Your task to perform on an android device: turn on improve location accuracy Image 0: 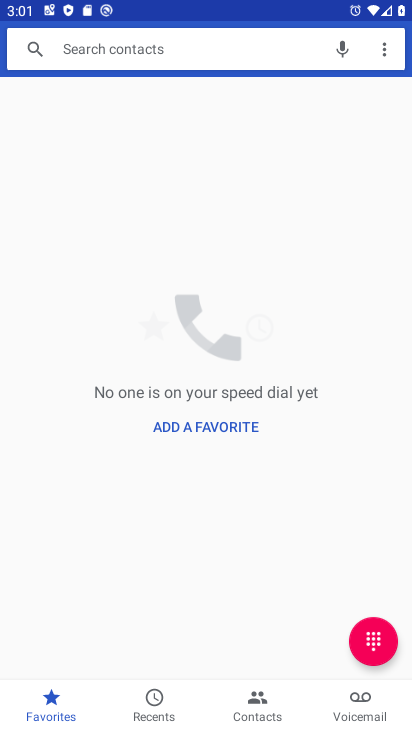
Step 0: press home button
Your task to perform on an android device: turn on improve location accuracy Image 1: 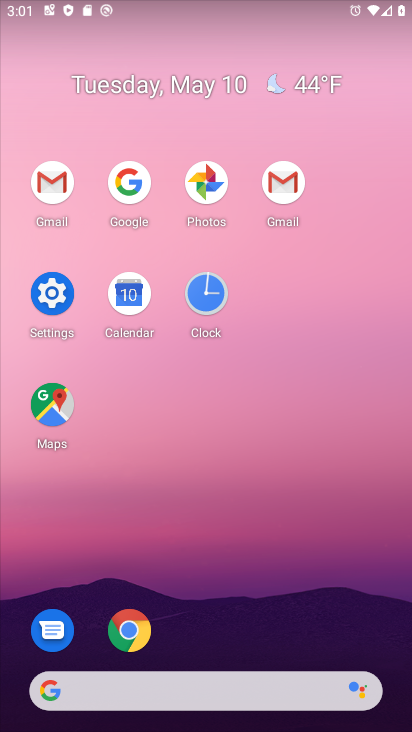
Step 1: click (68, 287)
Your task to perform on an android device: turn on improve location accuracy Image 2: 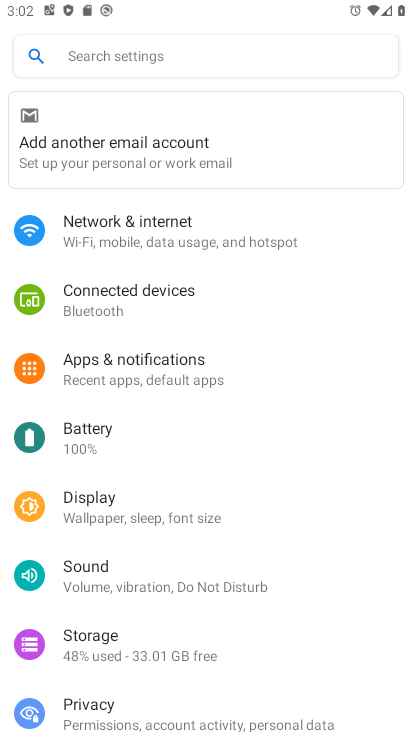
Step 2: drag from (260, 649) to (231, 209)
Your task to perform on an android device: turn on improve location accuracy Image 3: 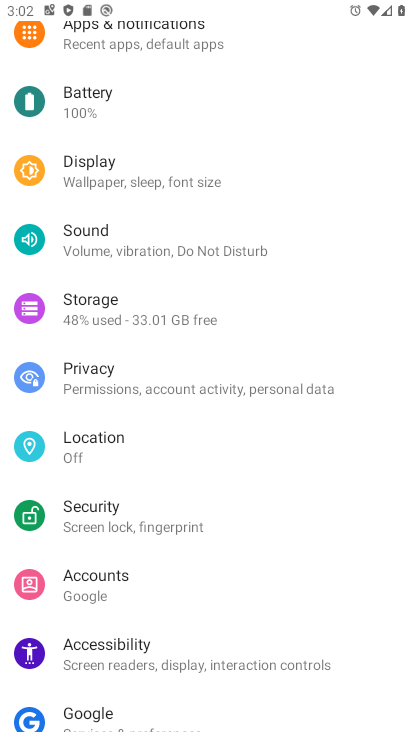
Step 3: click (160, 431)
Your task to perform on an android device: turn on improve location accuracy Image 4: 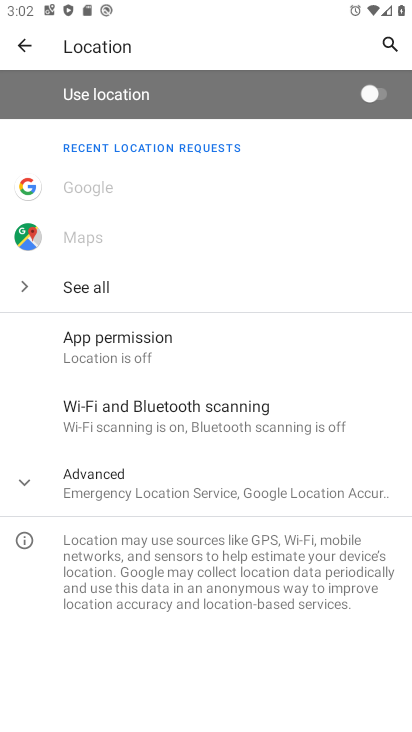
Step 4: click (158, 461)
Your task to perform on an android device: turn on improve location accuracy Image 5: 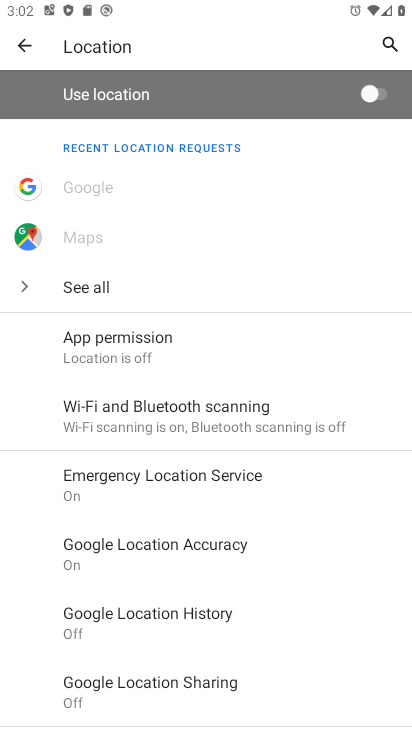
Step 5: click (173, 547)
Your task to perform on an android device: turn on improve location accuracy Image 6: 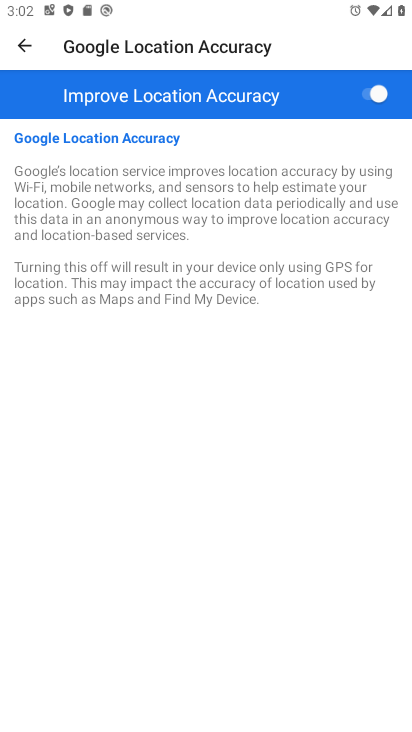
Step 6: task complete